Your task to perform on an android device: read, delete, or share a saved page in the chrome app Image 0: 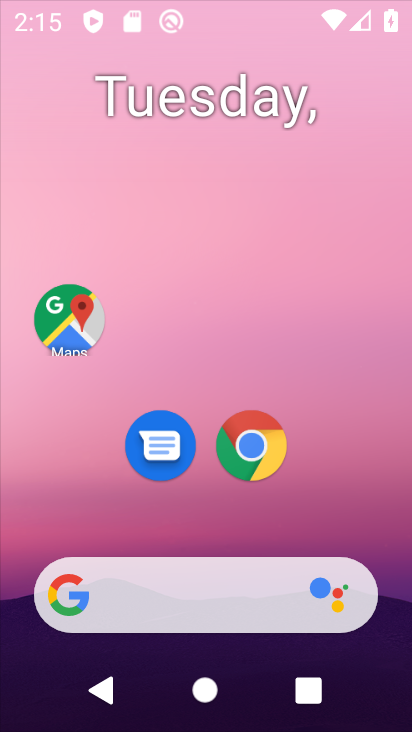
Step 0: drag from (364, 536) to (335, 40)
Your task to perform on an android device: read, delete, or share a saved page in the chrome app Image 1: 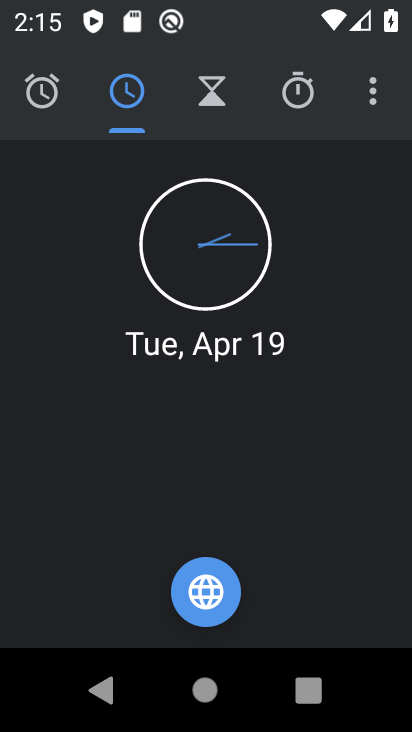
Step 1: press home button
Your task to perform on an android device: read, delete, or share a saved page in the chrome app Image 2: 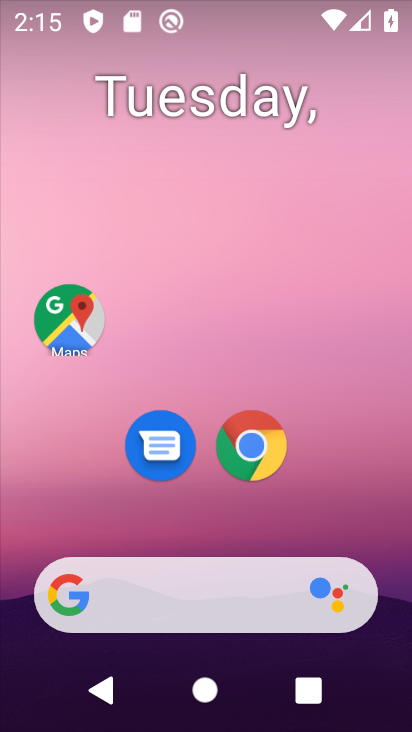
Step 2: click (259, 444)
Your task to perform on an android device: read, delete, or share a saved page in the chrome app Image 3: 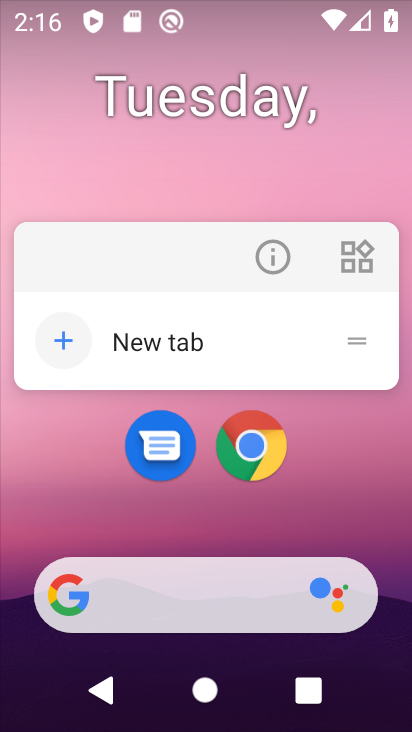
Step 3: click (259, 443)
Your task to perform on an android device: read, delete, or share a saved page in the chrome app Image 4: 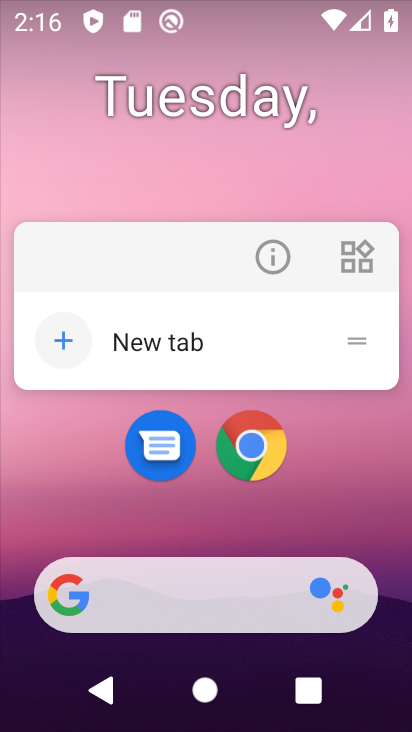
Step 4: click (259, 439)
Your task to perform on an android device: read, delete, or share a saved page in the chrome app Image 5: 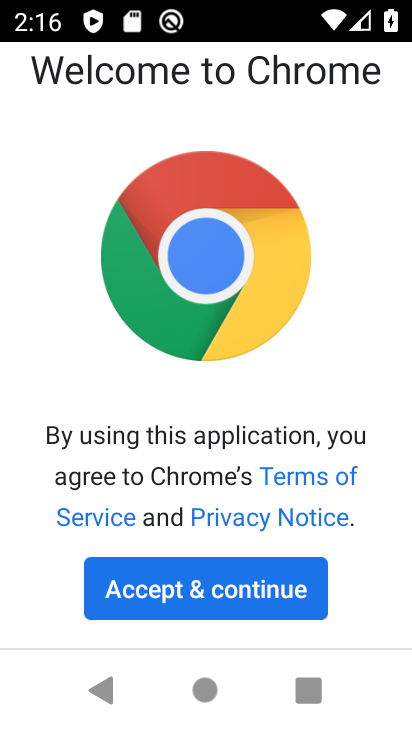
Step 5: click (183, 583)
Your task to perform on an android device: read, delete, or share a saved page in the chrome app Image 6: 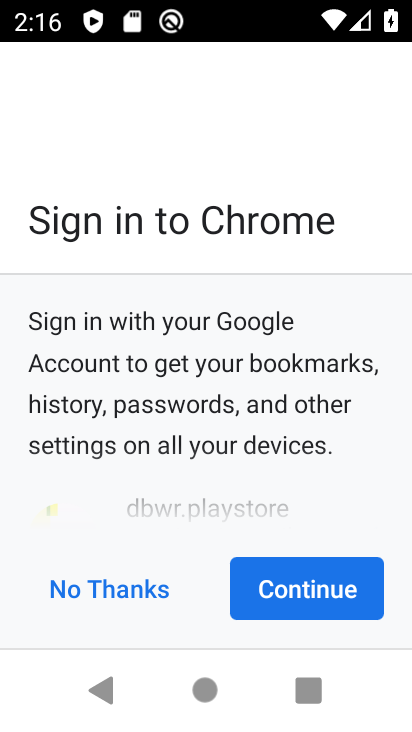
Step 6: click (106, 584)
Your task to perform on an android device: read, delete, or share a saved page in the chrome app Image 7: 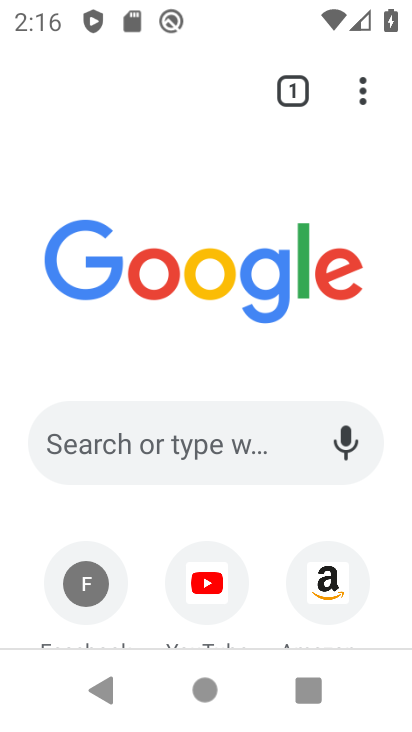
Step 7: drag from (359, 90) to (88, 474)
Your task to perform on an android device: read, delete, or share a saved page in the chrome app Image 8: 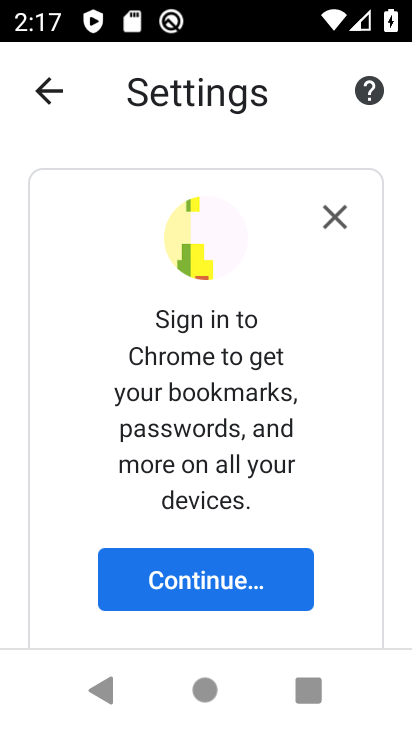
Step 8: click (165, 603)
Your task to perform on an android device: read, delete, or share a saved page in the chrome app Image 9: 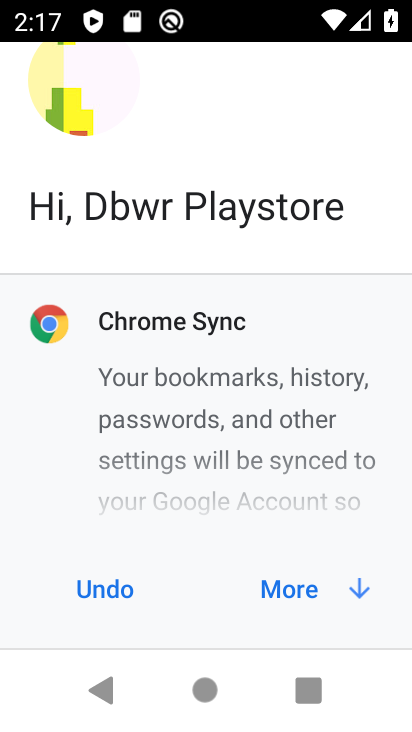
Step 9: click (293, 588)
Your task to perform on an android device: read, delete, or share a saved page in the chrome app Image 10: 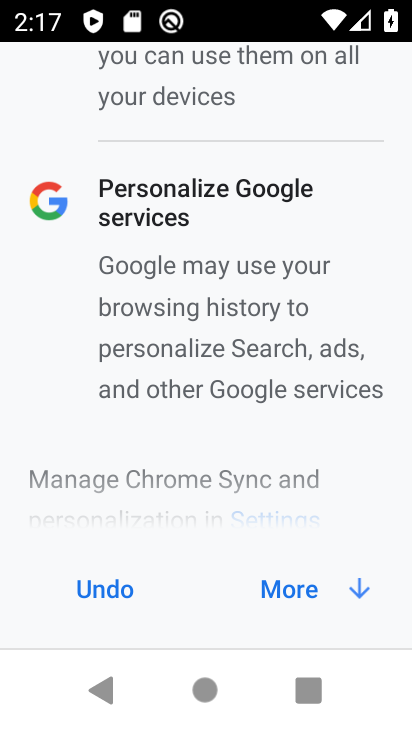
Step 10: click (293, 588)
Your task to perform on an android device: read, delete, or share a saved page in the chrome app Image 11: 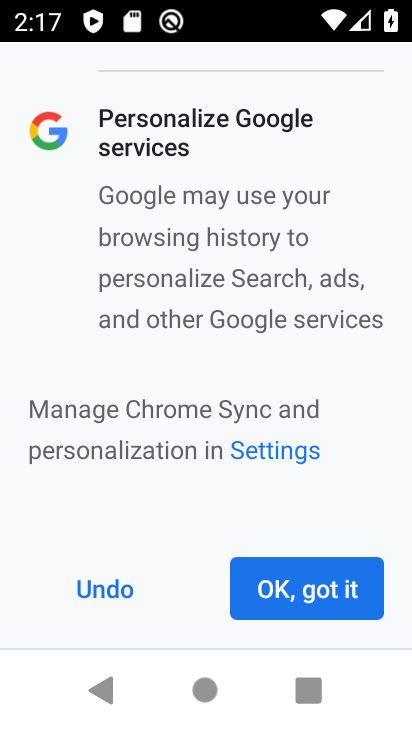
Step 11: click (292, 588)
Your task to perform on an android device: read, delete, or share a saved page in the chrome app Image 12: 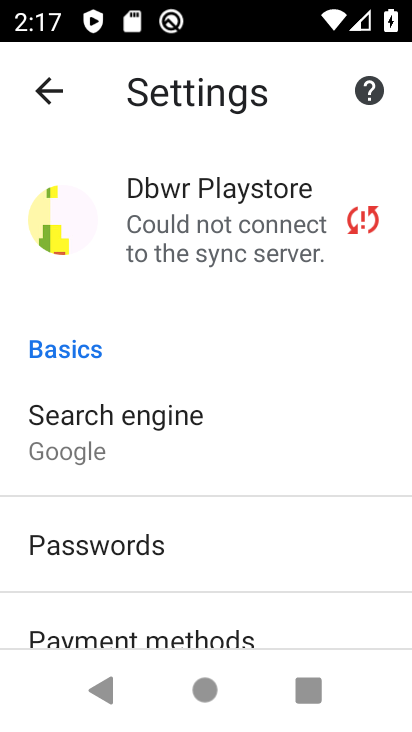
Step 12: click (65, 77)
Your task to perform on an android device: read, delete, or share a saved page in the chrome app Image 13: 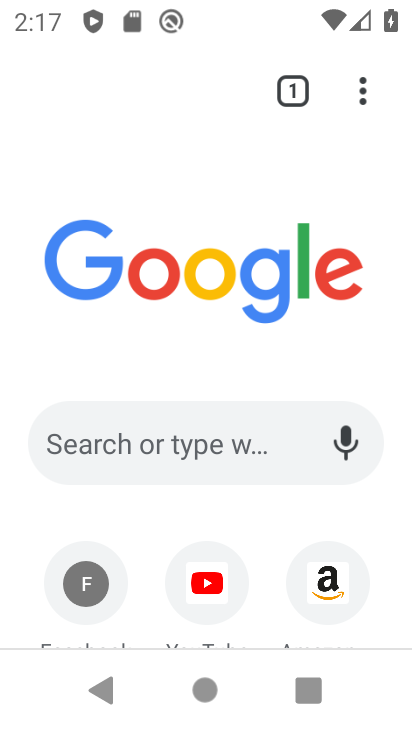
Step 13: task complete